Your task to perform on an android device: What's the weather? Image 0: 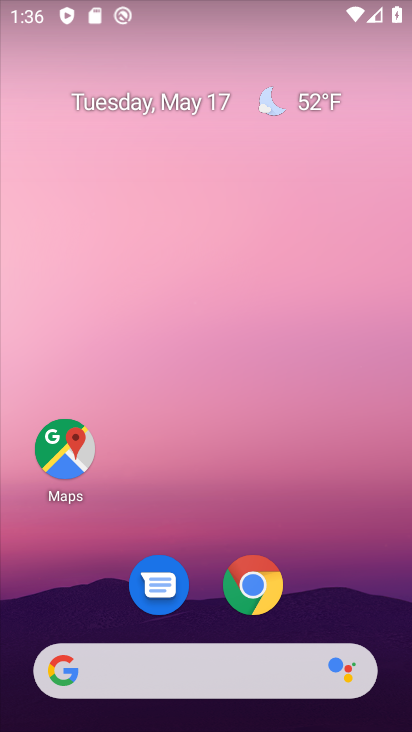
Step 0: click (296, 98)
Your task to perform on an android device: What's the weather? Image 1: 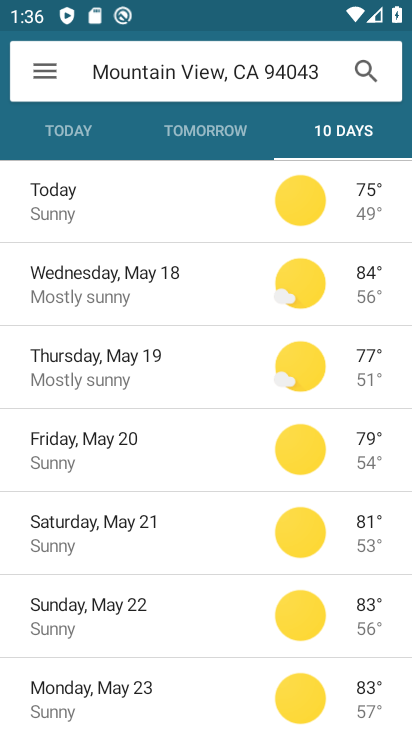
Step 1: click (118, 211)
Your task to perform on an android device: What's the weather? Image 2: 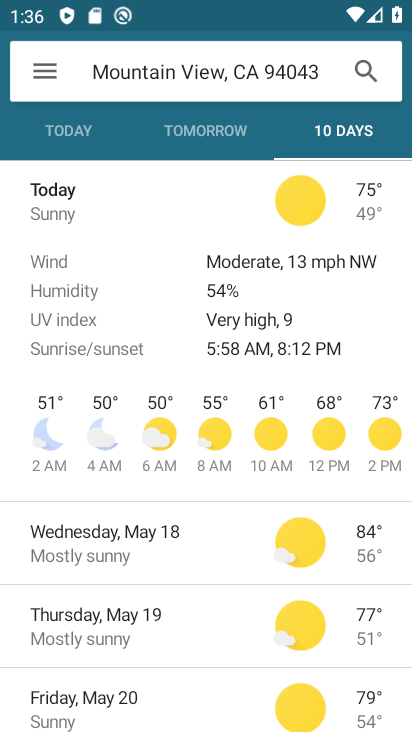
Step 2: click (66, 126)
Your task to perform on an android device: What's the weather? Image 3: 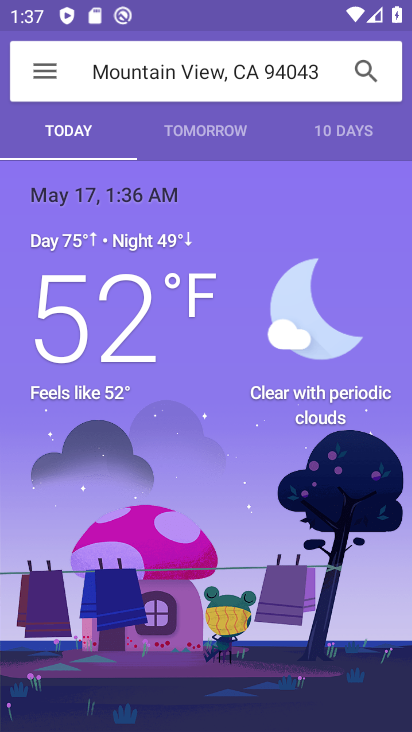
Step 3: task complete